Your task to perform on an android device: turn notification dots off Image 0: 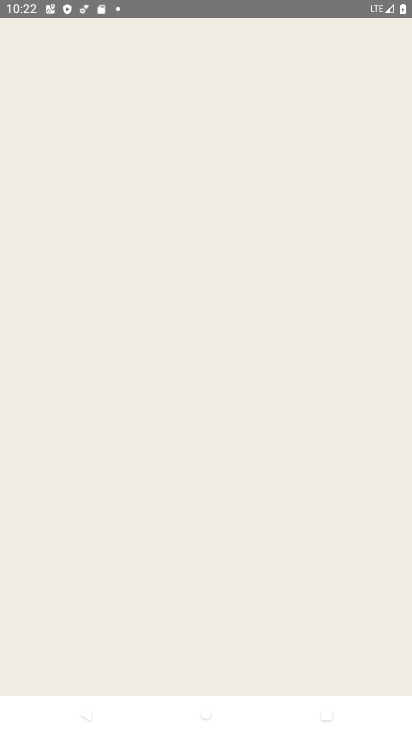
Step 0: press home button
Your task to perform on an android device: turn notification dots off Image 1: 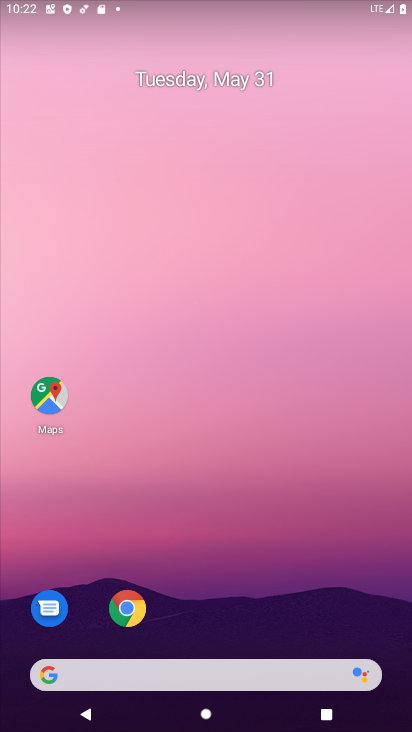
Step 1: drag from (231, 669) to (190, 53)
Your task to perform on an android device: turn notification dots off Image 2: 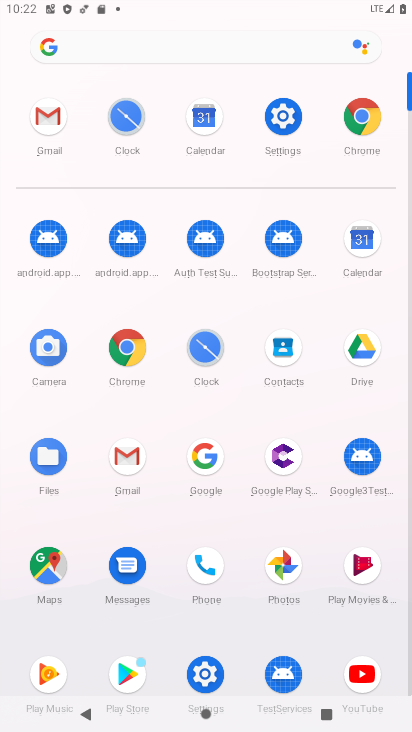
Step 2: click (277, 121)
Your task to perform on an android device: turn notification dots off Image 3: 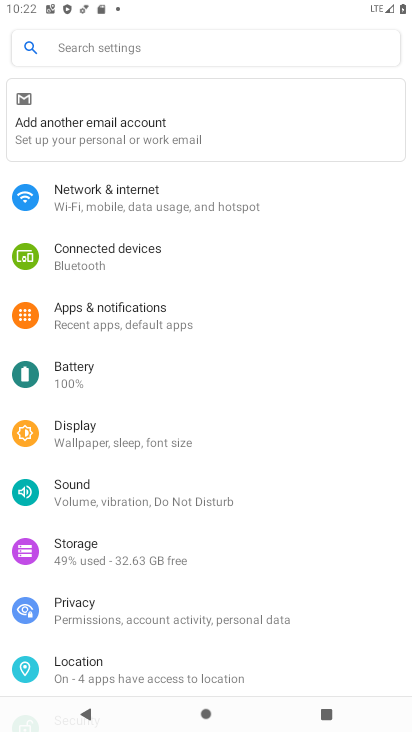
Step 3: click (94, 297)
Your task to perform on an android device: turn notification dots off Image 4: 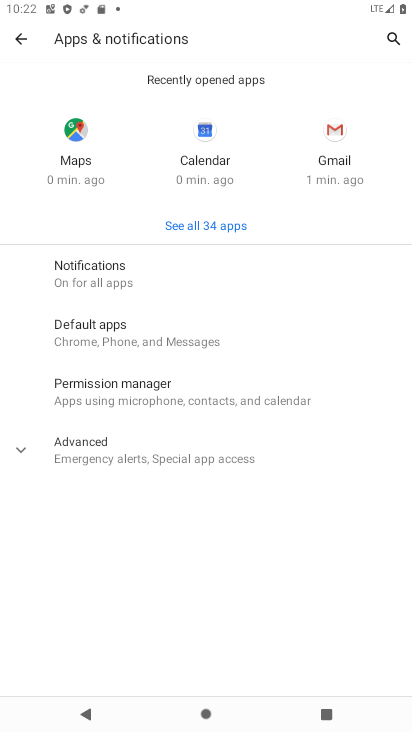
Step 4: click (109, 257)
Your task to perform on an android device: turn notification dots off Image 5: 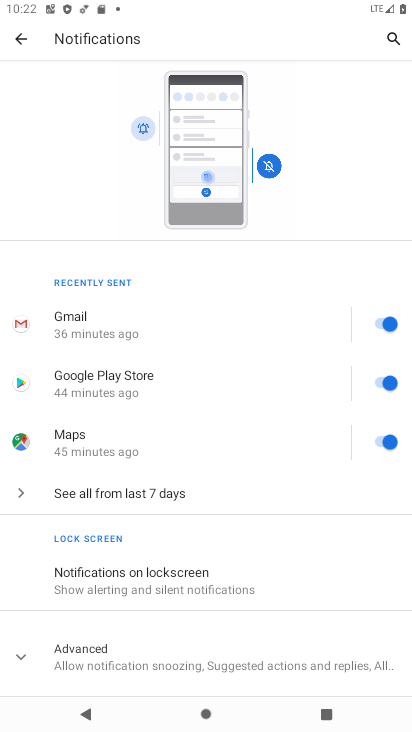
Step 5: click (155, 653)
Your task to perform on an android device: turn notification dots off Image 6: 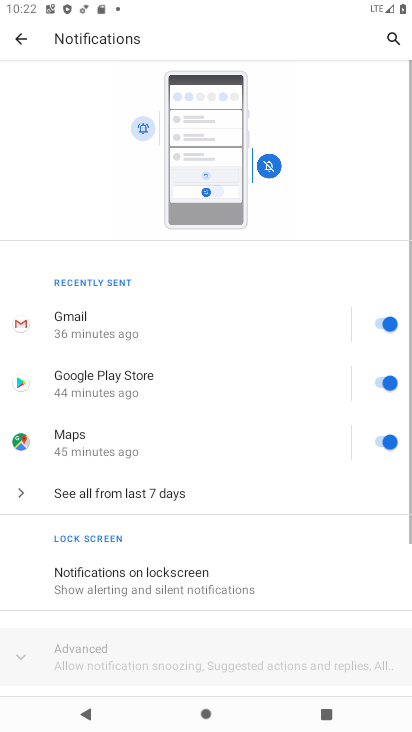
Step 6: drag from (155, 653) to (124, 196)
Your task to perform on an android device: turn notification dots off Image 7: 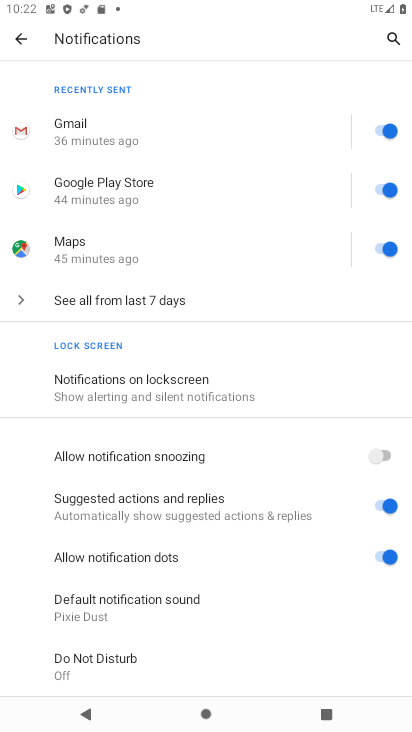
Step 7: click (379, 554)
Your task to perform on an android device: turn notification dots off Image 8: 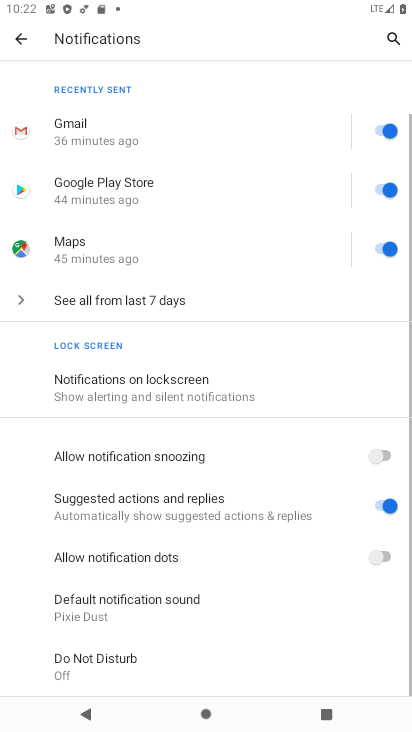
Step 8: task complete